Your task to perform on an android device: turn pop-ups off in chrome Image 0: 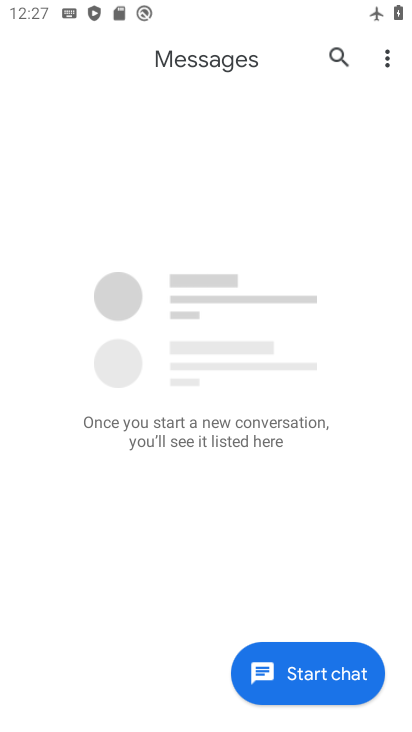
Step 0: press home button
Your task to perform on an android device: turn pop-ups off in chrome Image 1: 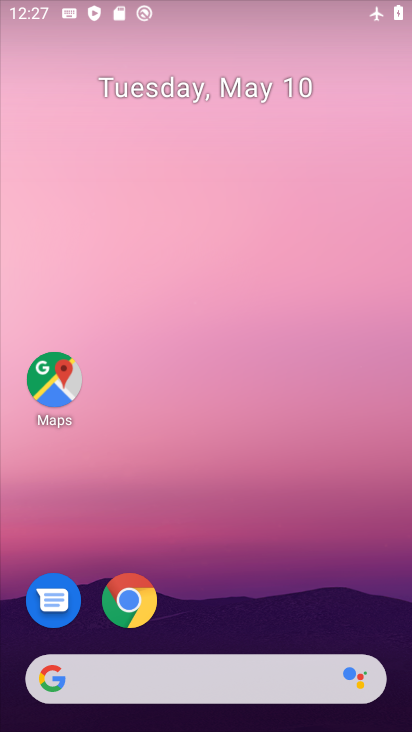
Step 1: drag from (221, 637) to (233, 207)
Your task to perform on an android device: turn pop-ups off in chrome Image 2: 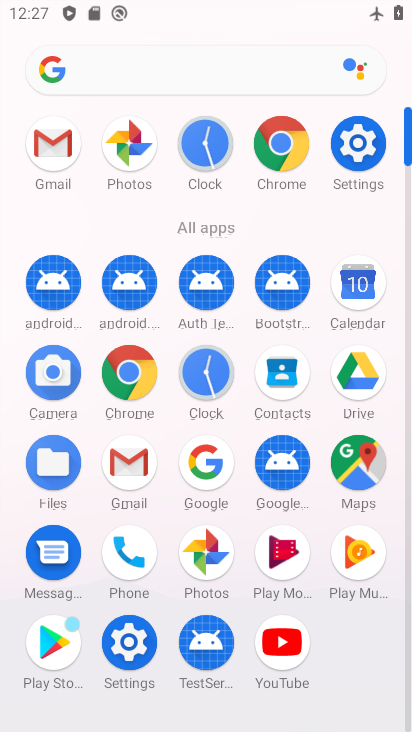
Step 2: click (291, 163)
Your task to perform on an android device: turn pop-ups off in chrome Image 3: 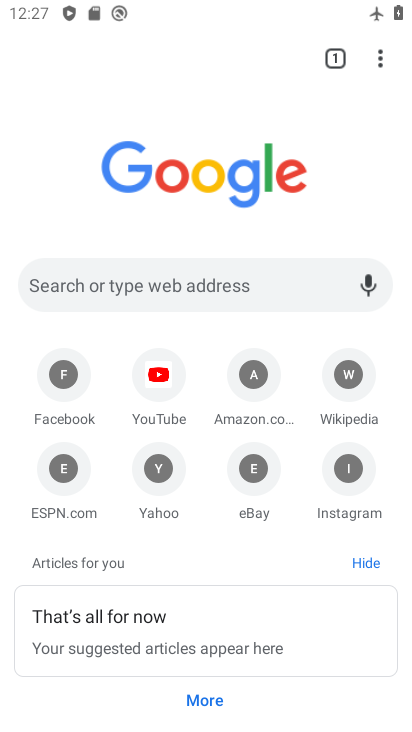
Step 3: click (384, 47)
Your task to perform on an android device: turn pop-ups off in chrome Image 4: 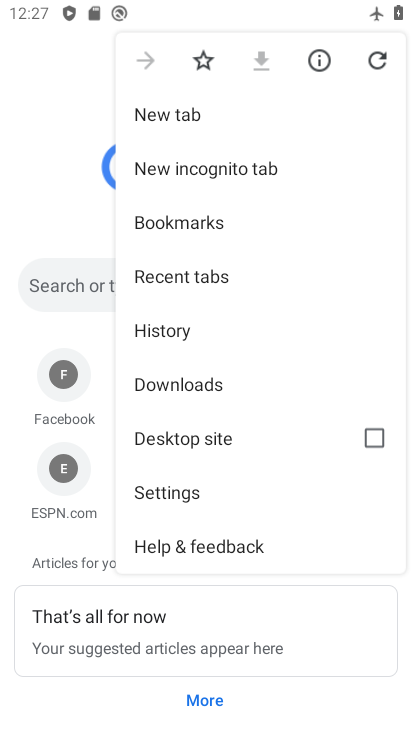
Step 4: drag from (190, 413) to (220, 220)
Your task to perform on an android device: turn pop-ups off in chrome Image 5: 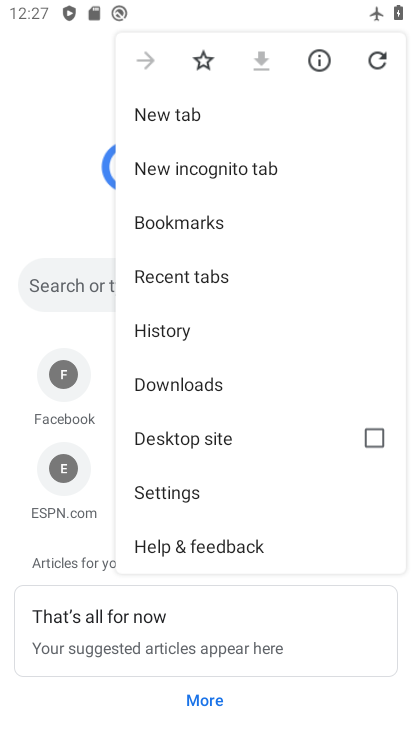
Step 5: click (164, 477)
Your task to perform on an android device: turn pop-ups off in chrome Image 6: 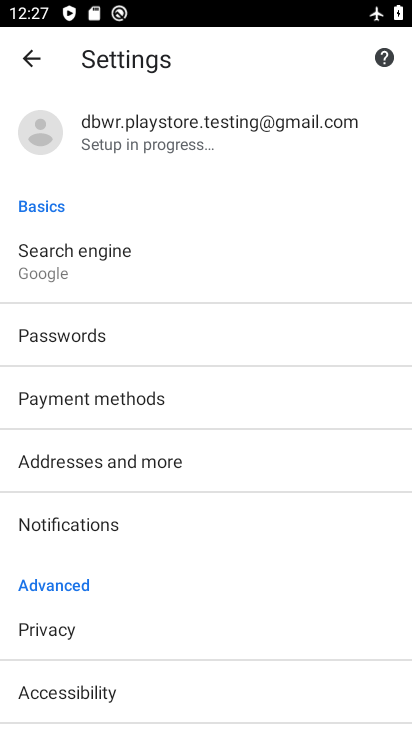
Step 6: drag from (134, 506) to (133, 97)
Your task to perform on an android device: turn pop-ups off in chrome Image 7: 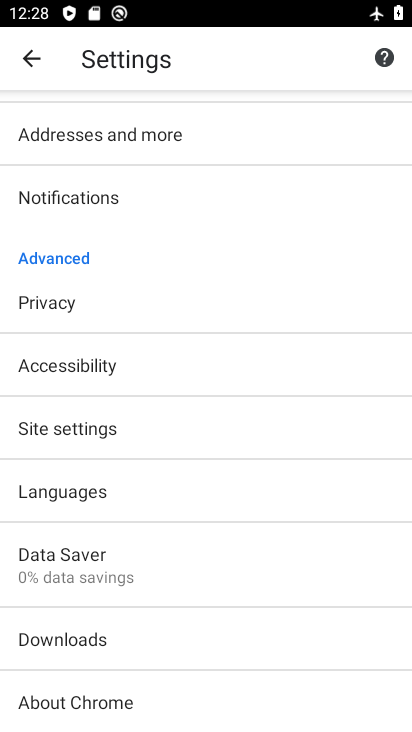
Step 7: click (145, 412)
Your task to perform on an android device: turn pop-ups off in chrome Image 8: 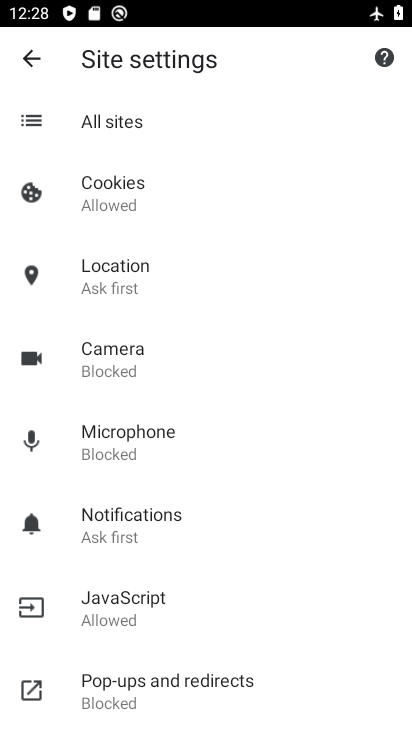
Step 8: click (183, 674)
Your task to perform on an android device: turn pop-ups off in chrome Image 9: 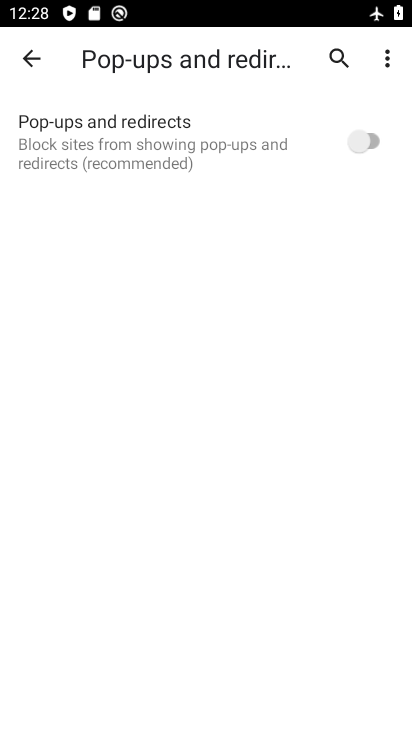
Step 9: task complete